Your task to perform on an android device: see sites visited before in the chrome app Image 0: 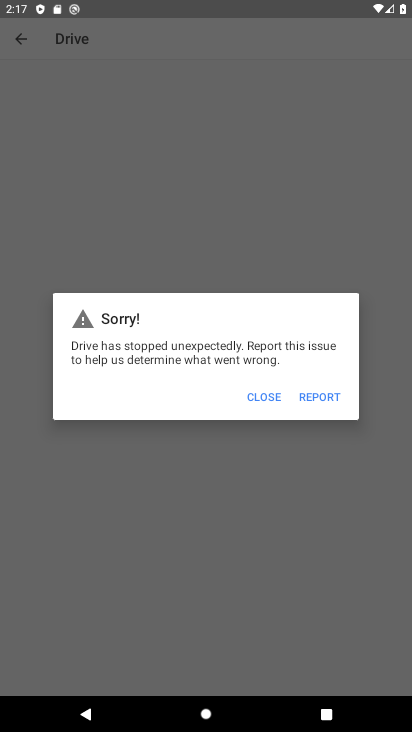
Step 0: press home button
Your task to perform on an android device: see sites visited before in the chrome app Image 1: 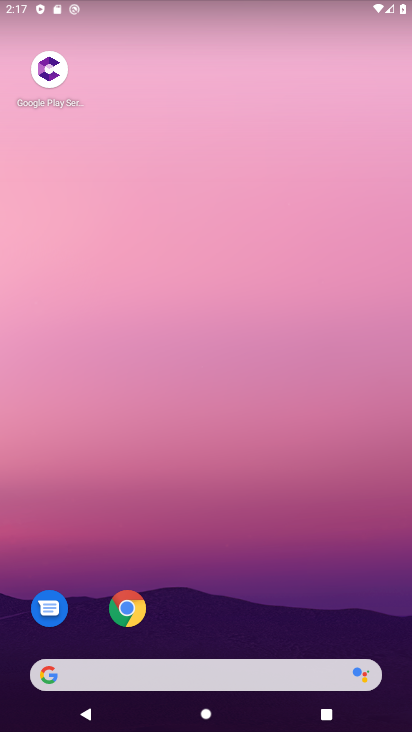
Step 1: click (123, 603)
Your task to perform on an android device: see sites visited before in the chrome app Image 2: 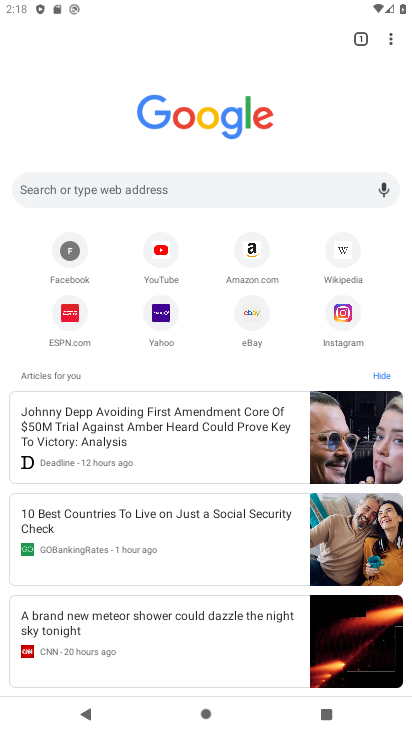
Step 2: click (387, 34)
Your task to perform on an android device: see sites visited before in the chrome app Image 3: 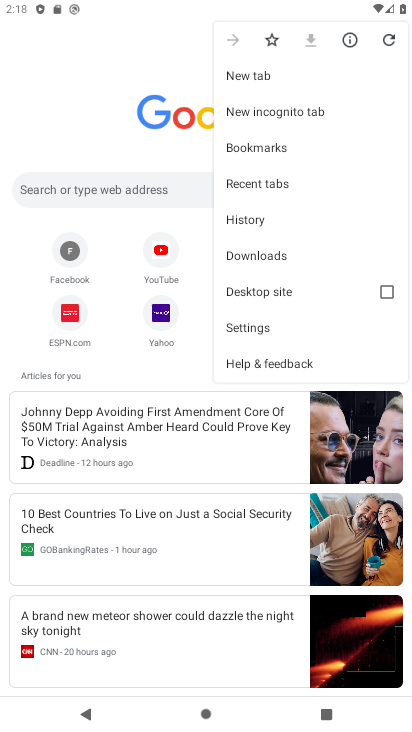
Step 3: click (249, 328)
Your task to perform on an android device: see sites visited before in the chrome app Image 4: 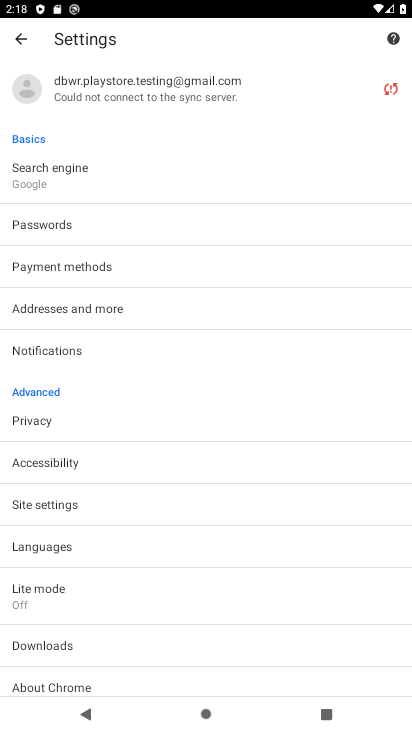
Step 4: click (16, 42)
Your task to perform on an android device: see sites visited before in the chrome app Image 5: 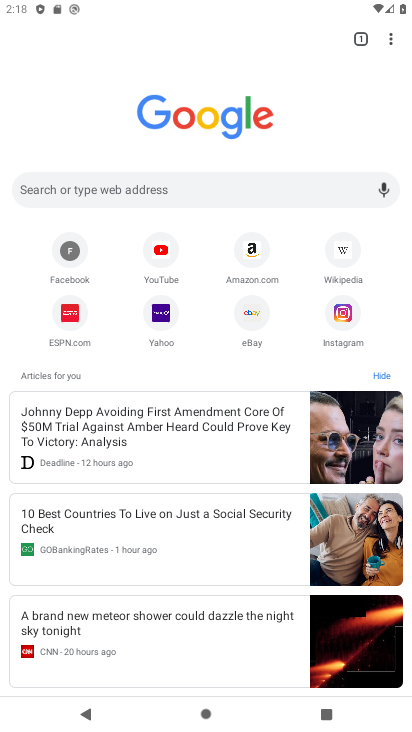
Step 5: click (392, 29)
Your task to perform on an android device: see sites visited before in the chrome app Image 6: 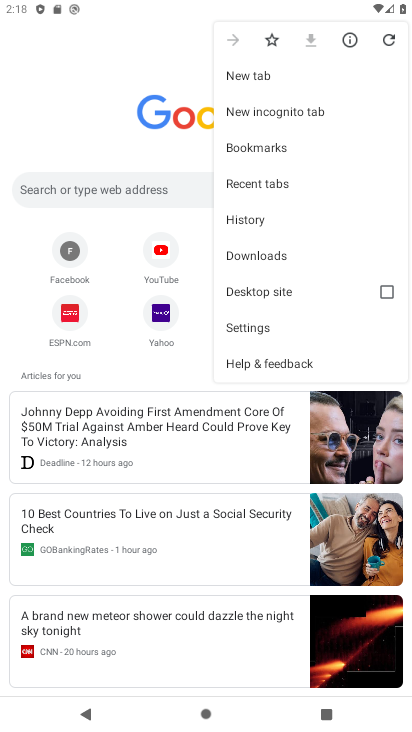
Step 6: click (247, 222)
Your task to perform on an android device: see sites visited before in the chrome app Image 7: 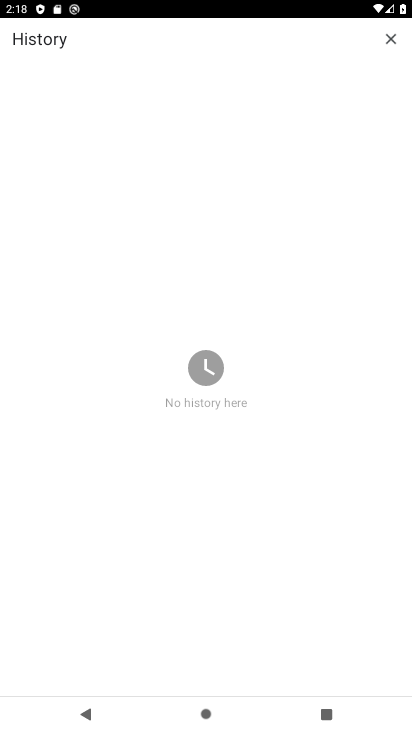
Step 7: task complete